Your task to perform on an android device: Go to notification settings Image 0: 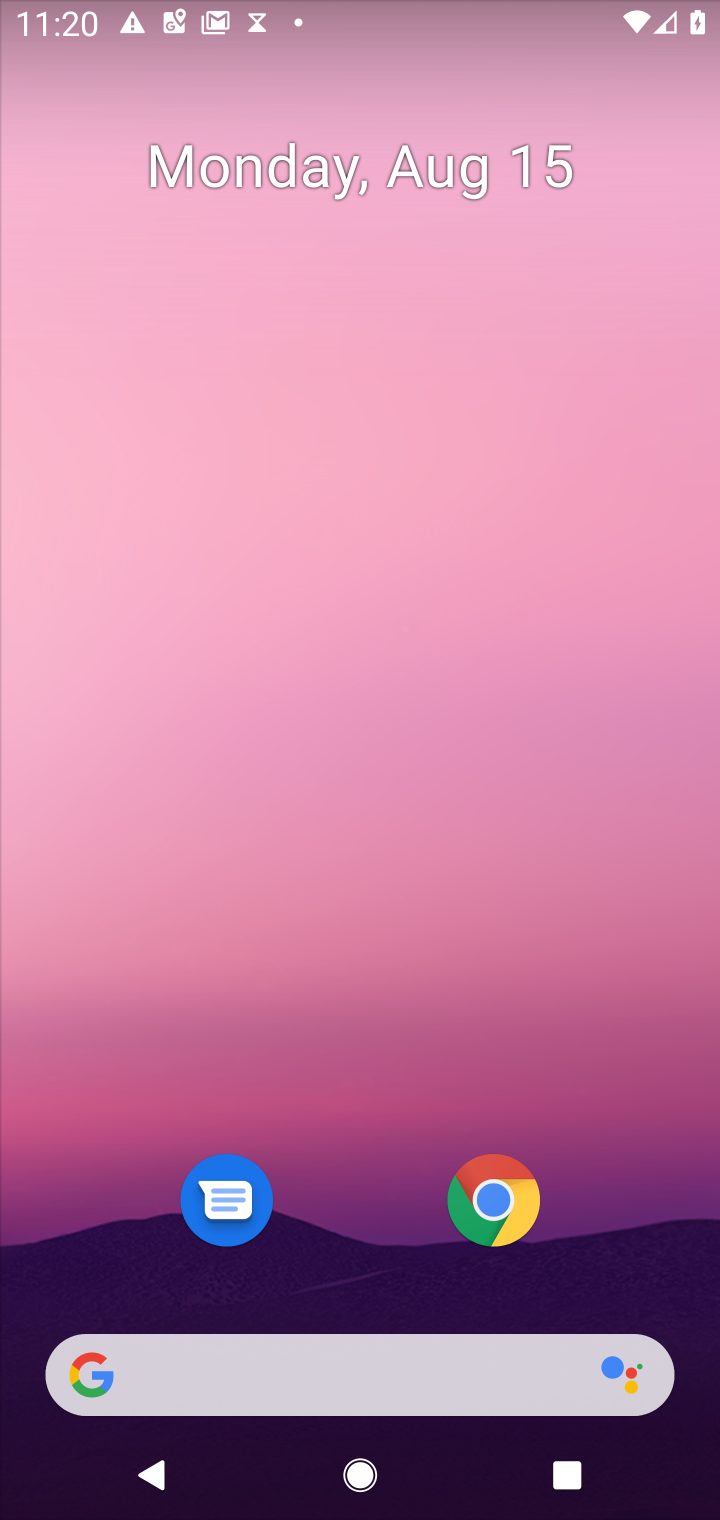
Step 0: drag from (358, 1263) to (423, 304)
Your task to perform on an android device: Go to notification settings Image 1: 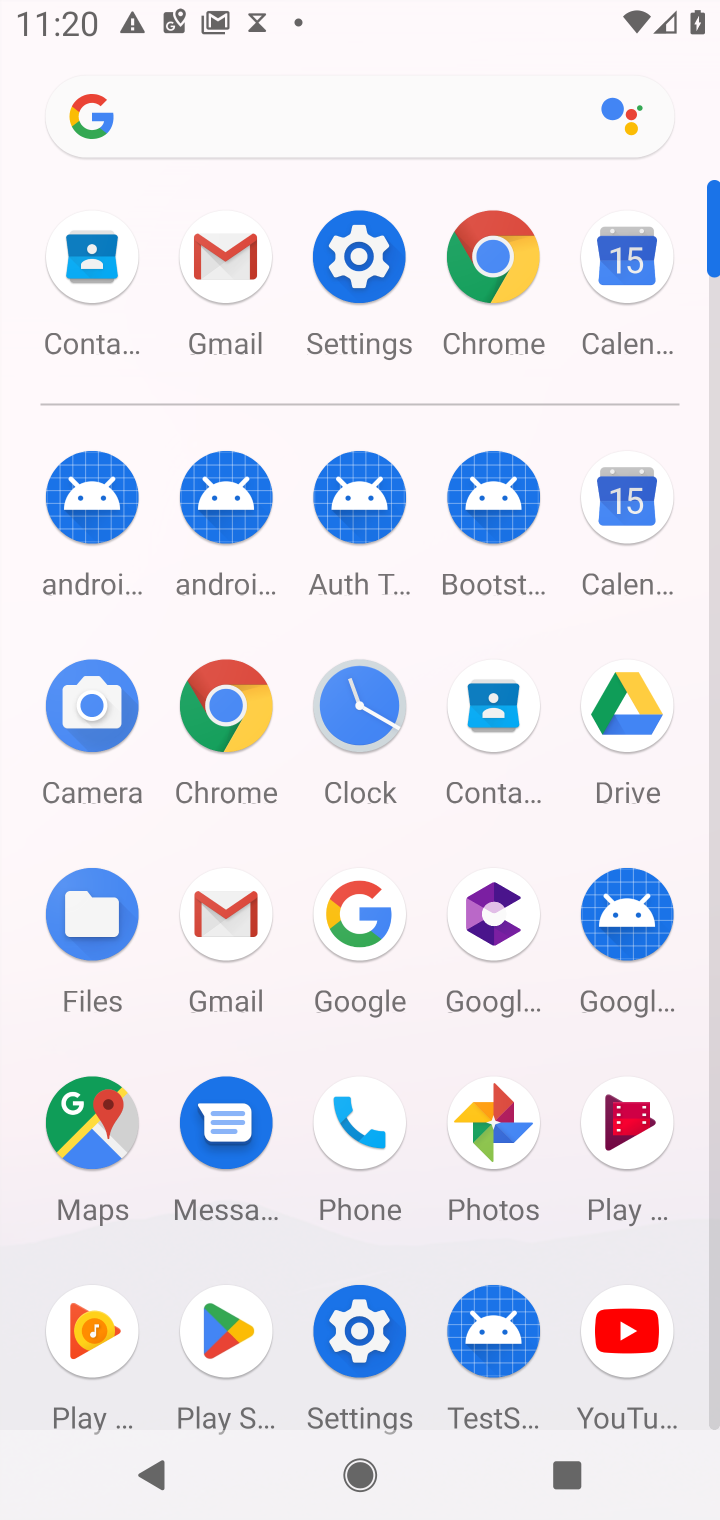
Step 1: click (348, 253)
Your task to perform on an android device: Go to notification settings Image 2: 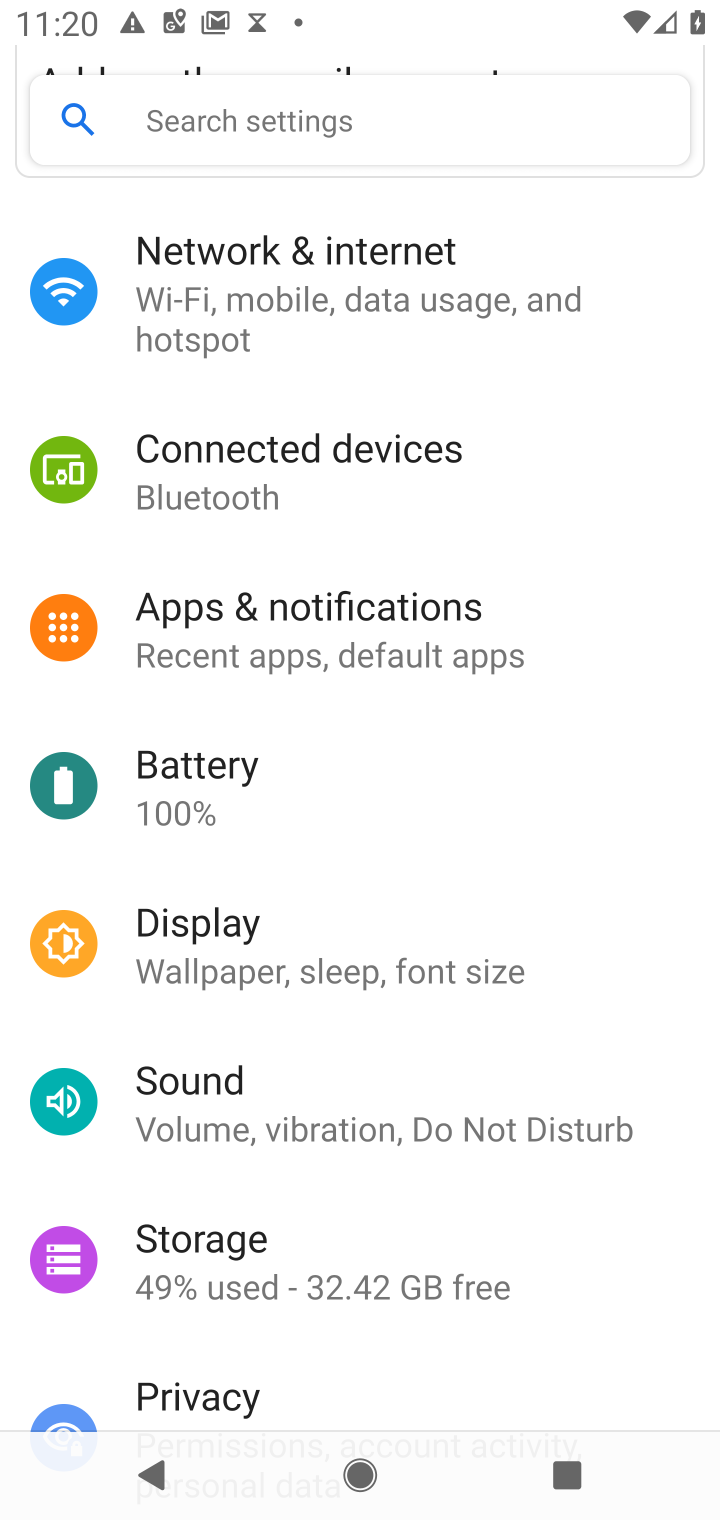
Step 2: click (403, 634)
Your task to perform on an android device: Go to notification settings Image 3: 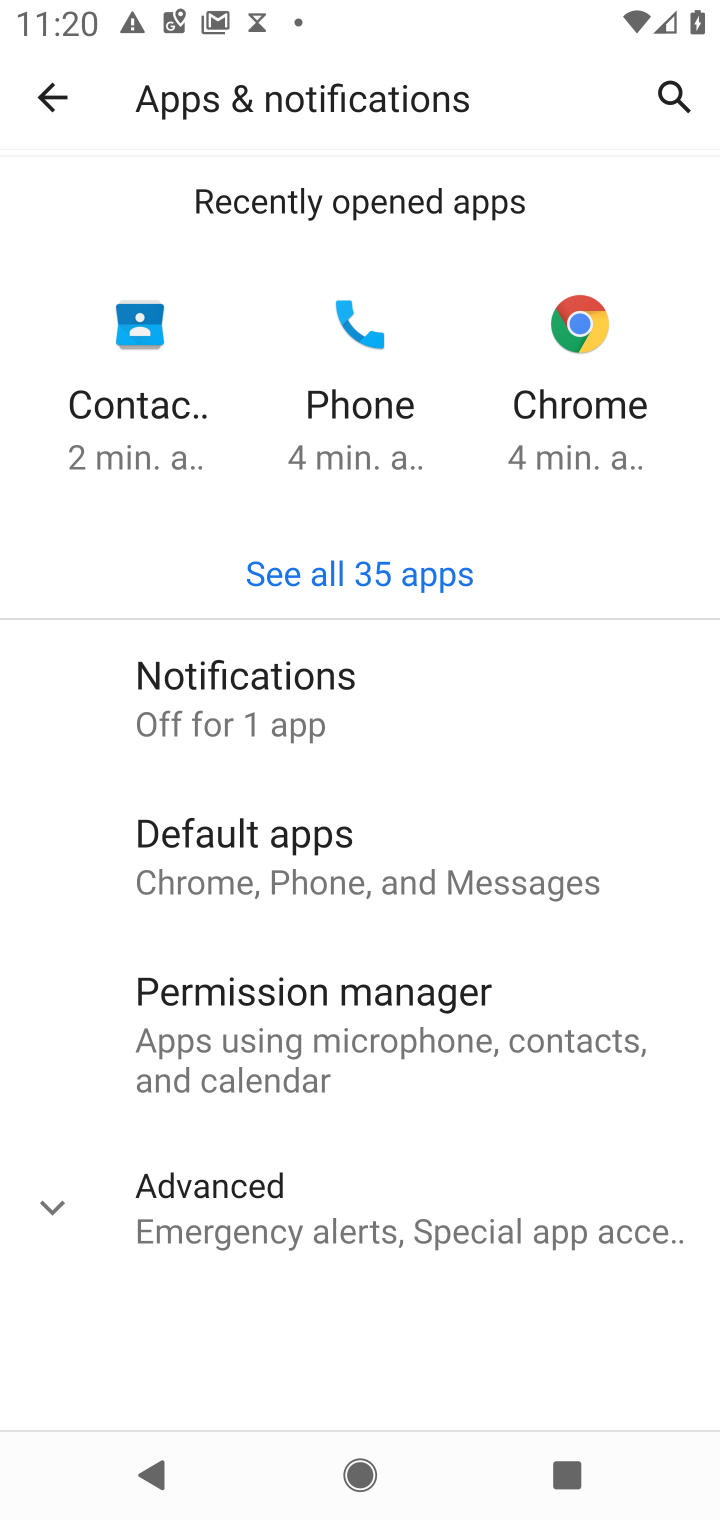
Step 3: click (332, 670)
Your task to perform on an android device: Go to notification settings Image 4: 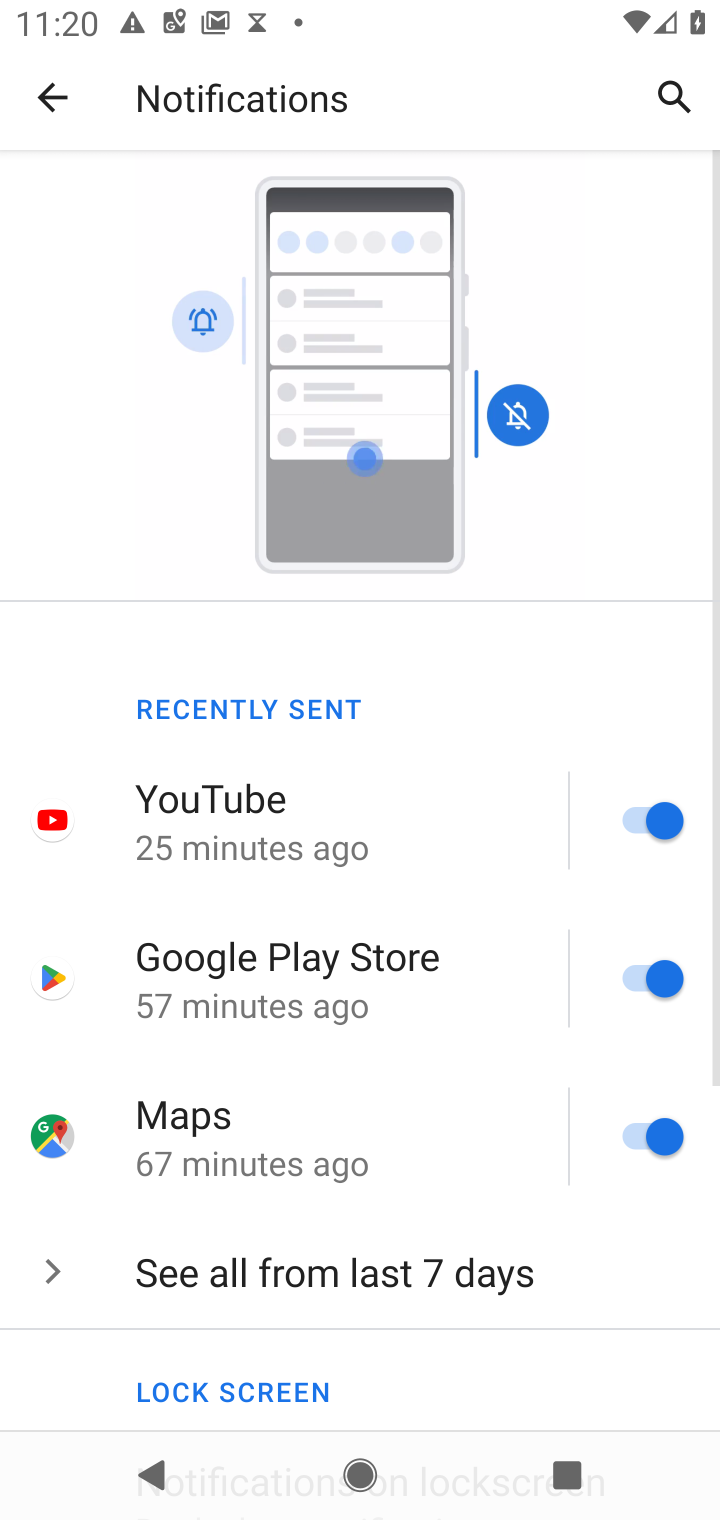
Step 4: task complete